Your task to perform on an android device: toggle notification dots Image 0: 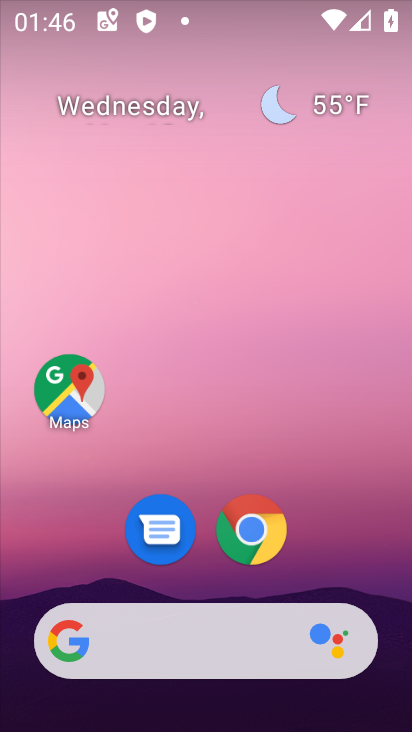
Step 0: drag from (229, 715) to (217, 178)
Your task to perform on an android device: toggle notification dots Image 1: 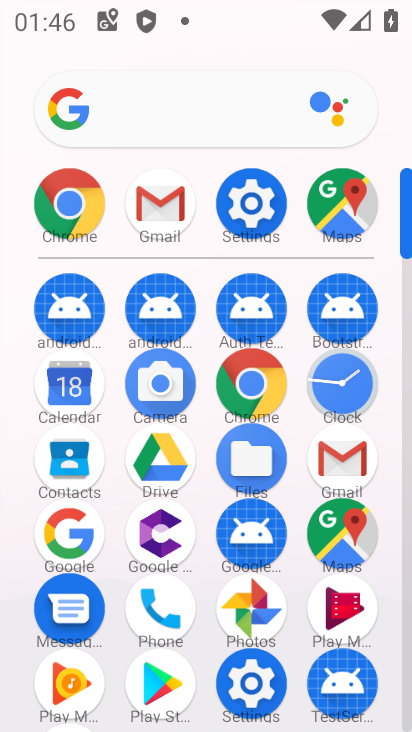
Step 1: click (257, 198)
Your task to perform on an android device: toggle notification dots Image 2: 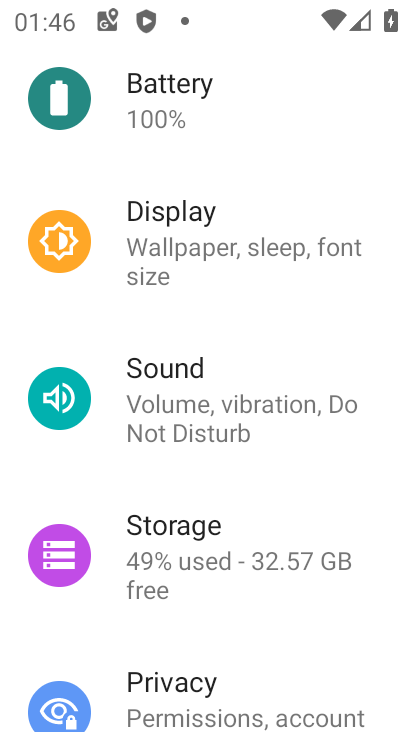
Step 2: drag from (229, 133) to (223, 560)
Your task to perform on an android device: toggle notification dots Image 3: 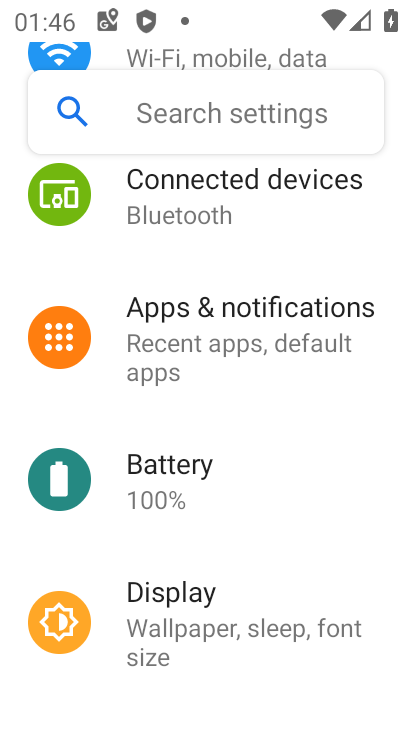
Step 3: click (215, 308)
Your task to perform on an android device: toggle notification dots Image 4: 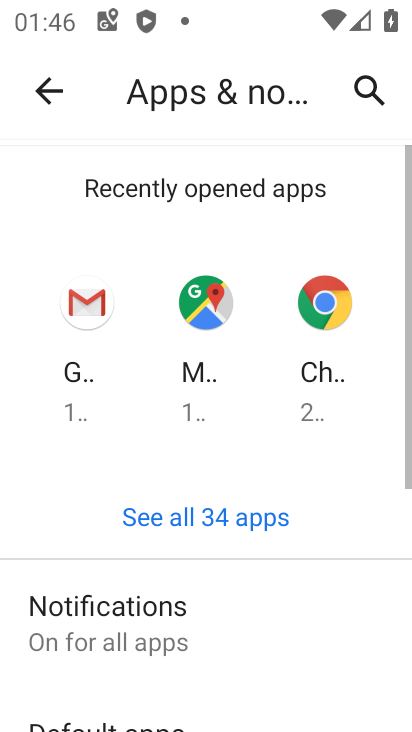
Step 4: click (107, 612)
Your task to perform on an android device: toggle notification dots Image 5: 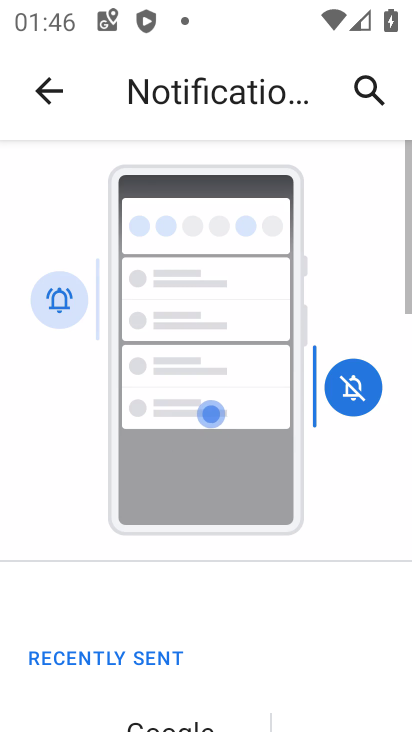
Step 5: drag from (228, 683) to (233, 259)
Your task to perform on an android device: toggle notification dots Image 6: 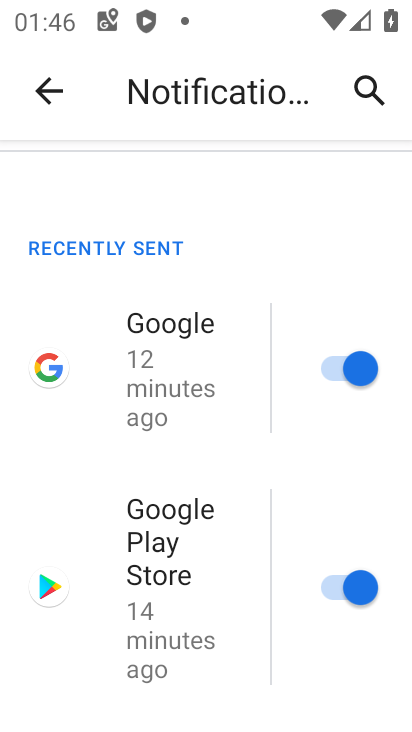
Step 6: drag from (243, 663) to (256, 461)
Your task to perform on an android device: toggle notification dots Image 7: 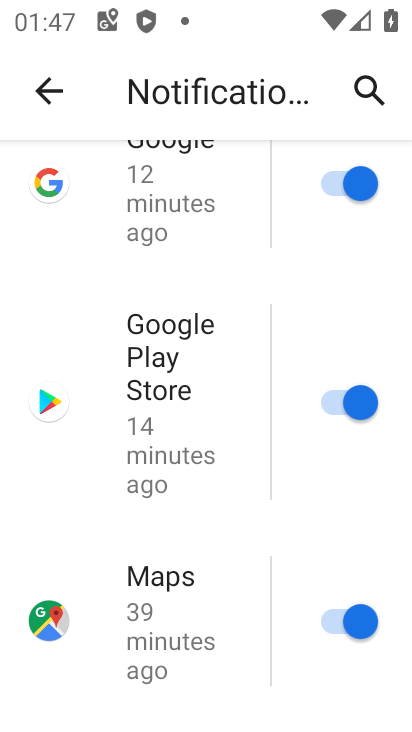
Step 7: drag from (185, 222) to (198, 696)
Your task to perform on an android device: toggle notification dots Image 8: 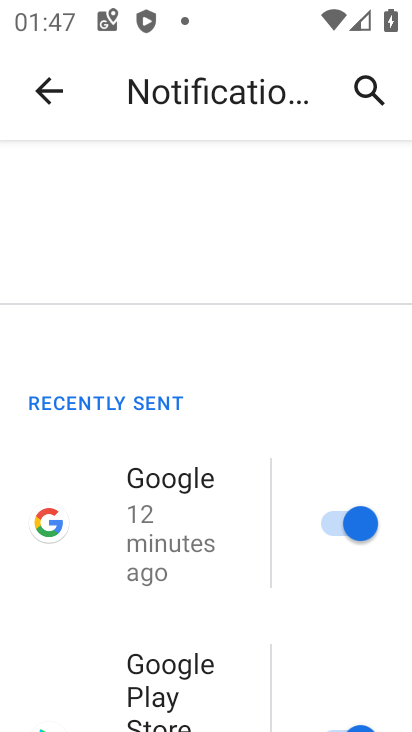
Step 8: drag from (172, 655) to (191, 180)
Your task to perform on an android device: toggle notification dots Image 9: 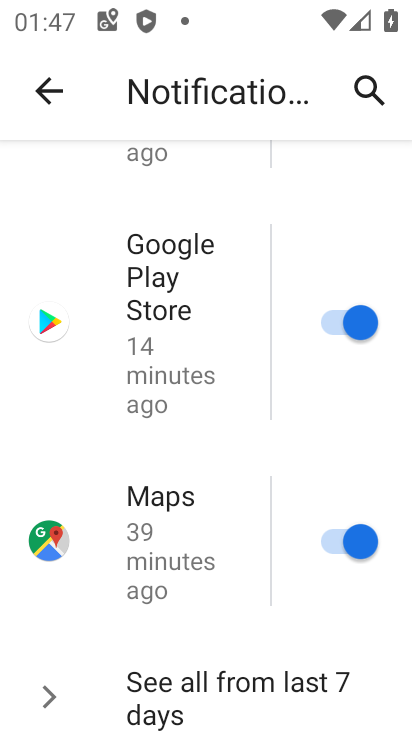
Step 9: drag from (181, 680) to (191, 341)
Your task to perform on an android device: toggle notification dots Image 10: 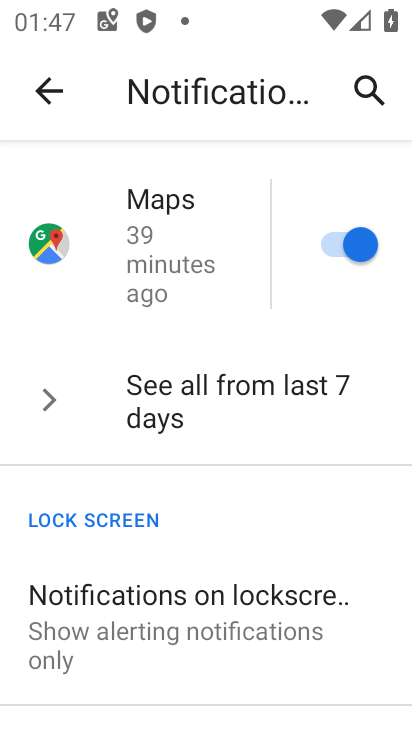
Step 10: drag from (181, 668) to (200, 204)
Your task to perform on an android device: toggle notification dots Image 11: 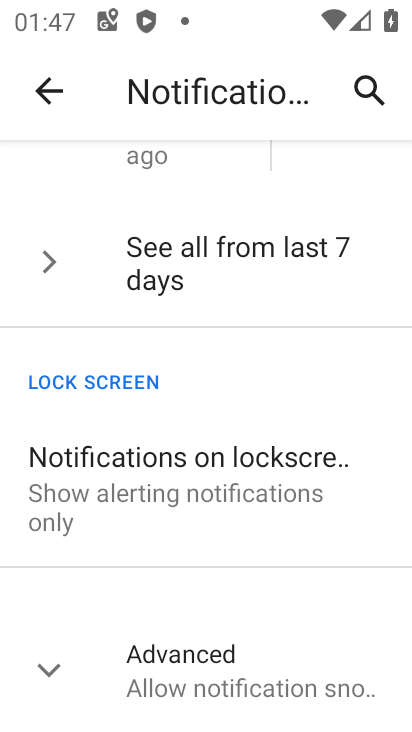
Step 11: click (182, 661)
Your task to perform on an android device: toggle notification dots Image 12: 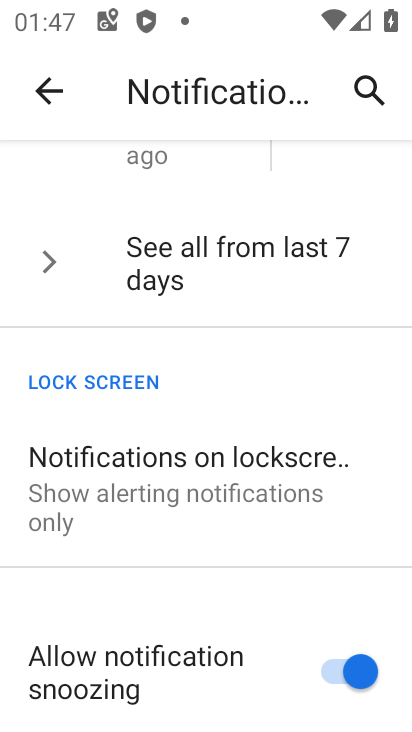
Step 12: drag from (188, 680) to (204, 308)
Your task to perform on an android device: toggle notification dots Image 13: 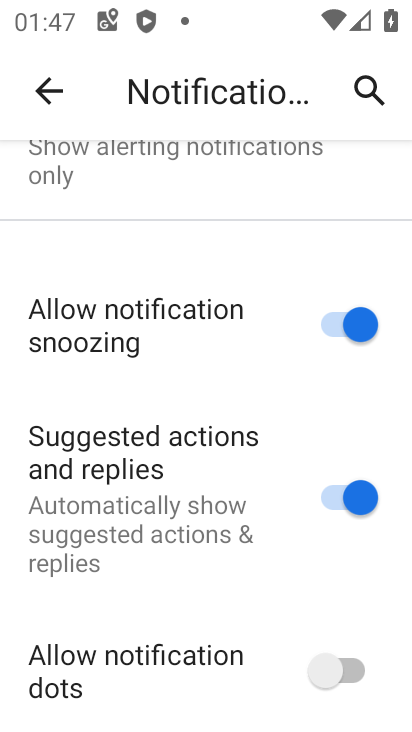
Step 13: click (345, 670)
Your task to perform on an android device: toggle notification dots Image 14: 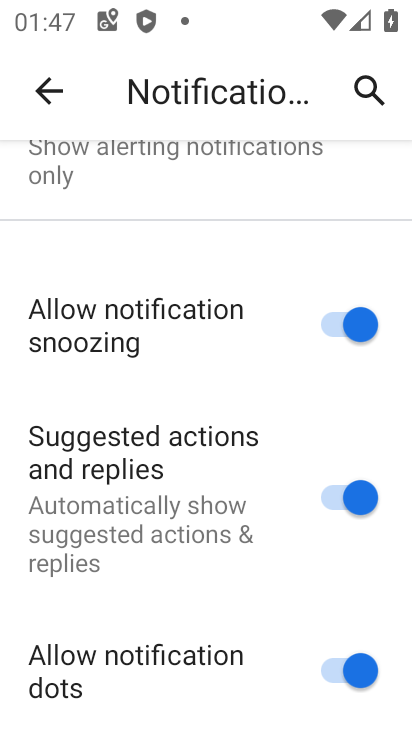
Step 14: task complete